Your task to perform on an android device: find photos in the google photos app Image 0: 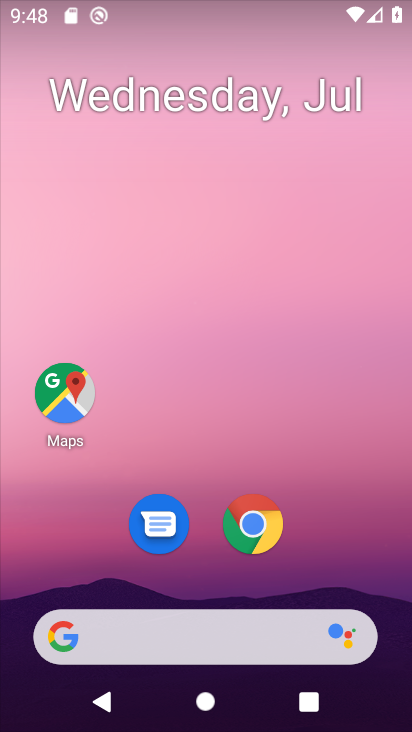
Step 0: drag from (351, 559) to (365, 42)
Your task to perform on an android device: find photos in the google photos app Image 1: 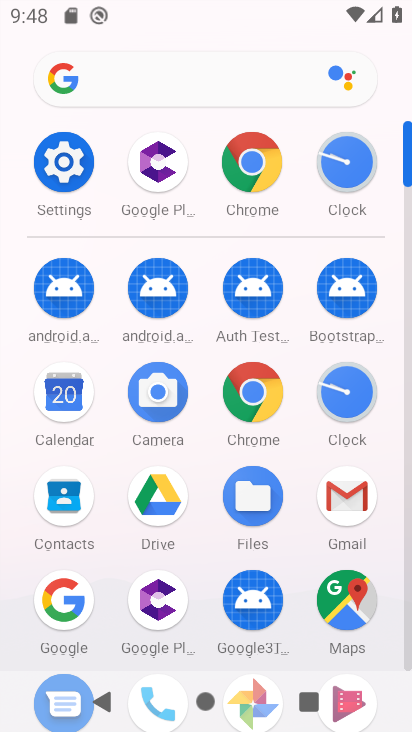
Step 1: drag from (197, 530) to (217, 367)
Your task to perform on an android device: find photos in the google photos app Image 2: 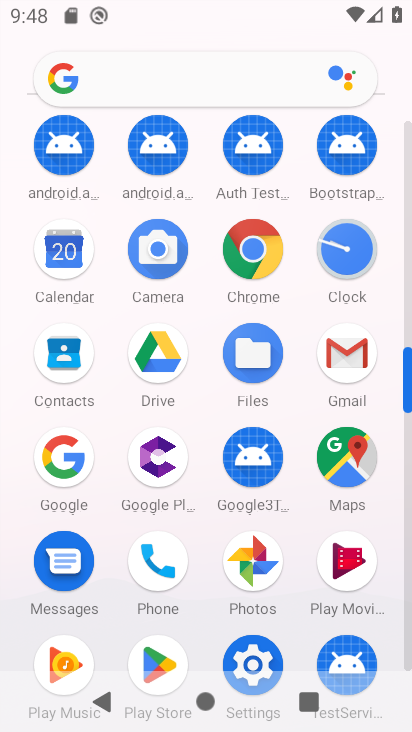
Step 2: drag from (292, 515) to (333, 226)
Your task to perform on an android device: find photos in the google photos app Image 3: 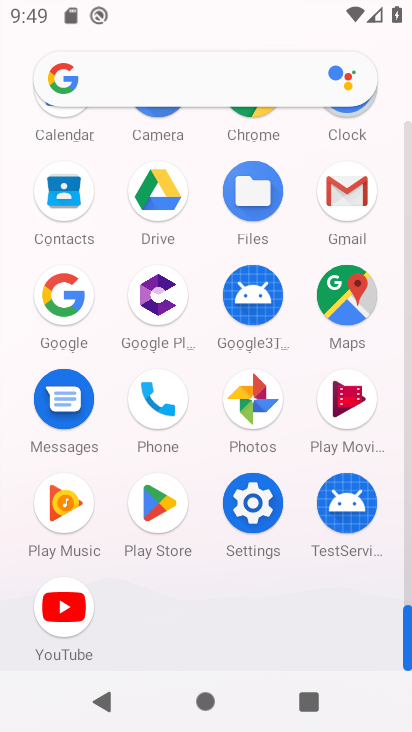
Step 3: click (260, 397)
Your task to perform on an android device: find photos in the google photos app Image 4: 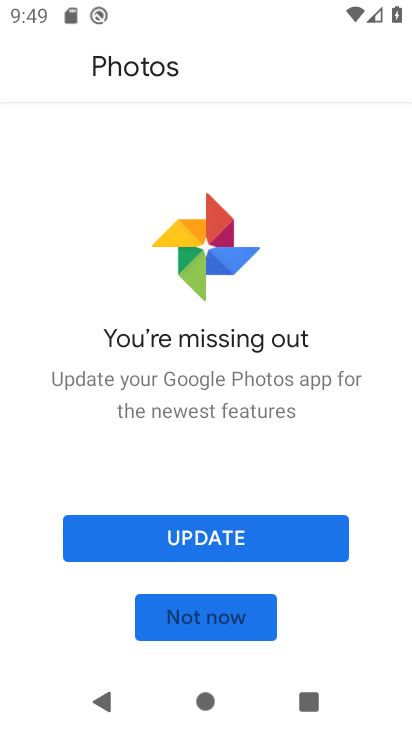
Step 4: click (249, 622)
Your task to perform on an android device: find photos in the google photos app Image 5: 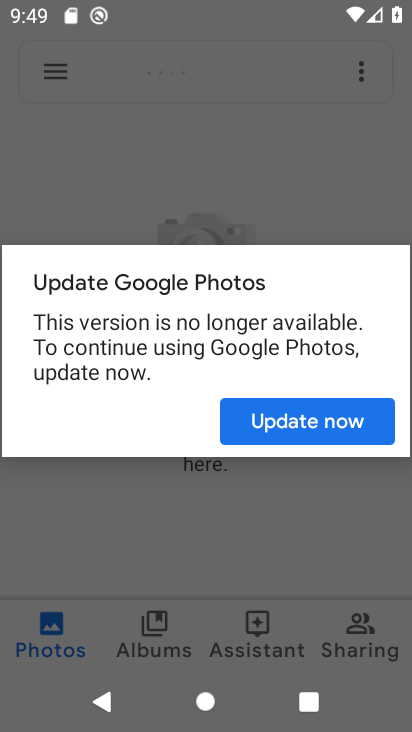
Step 5: click (326, 412)
Your task to perform on an android device: find photos in the google photos app Image 6: 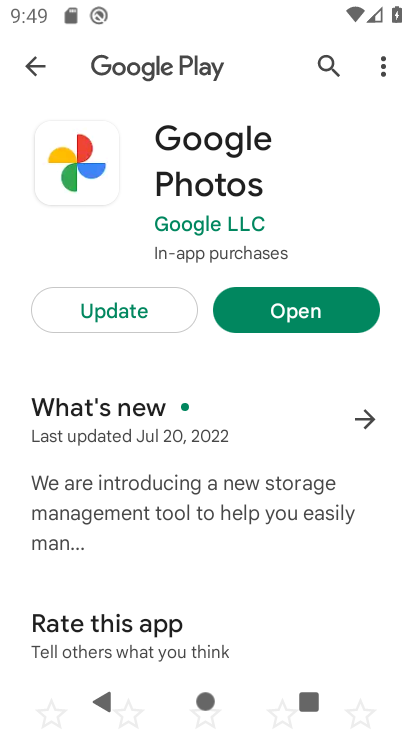
Step 6: click (309, 311)
Your task to perform on an android device: find photos in the google photos app Image 7: 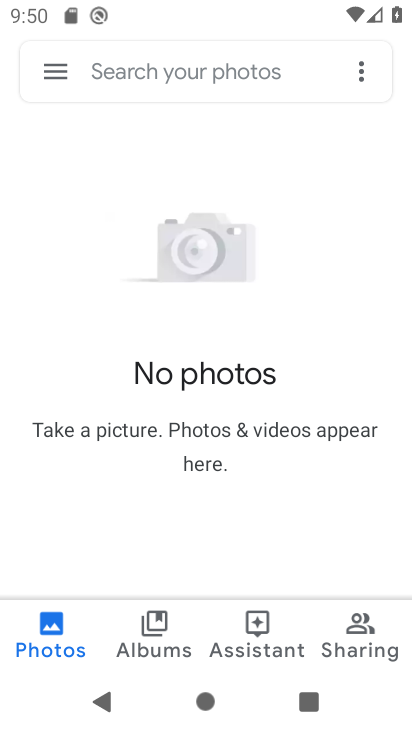
Step 7: task complete